Your task to perform on an android device: turn on sleep mode Image 0: 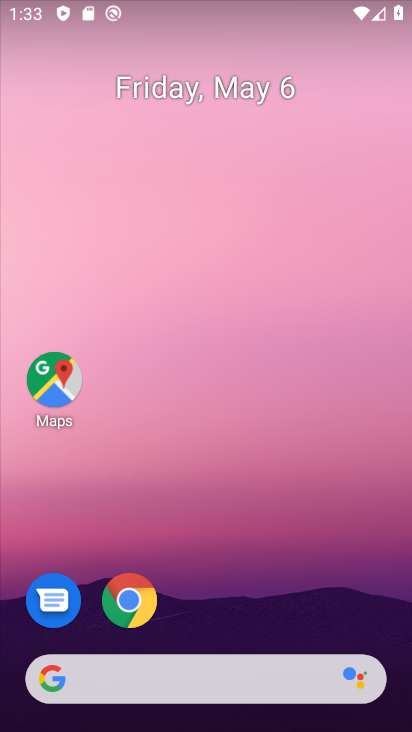
Step 0: drag from (289, 579) to (326, 44)
Your task to perform on an android device: turn on sleep mode Image 1: 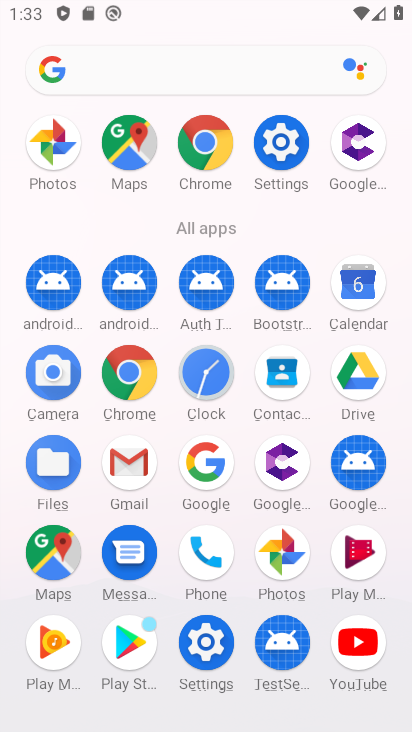
Step 1: click (272, 136)
Your task to perform on an android device: turn on sleep mode Image 2: 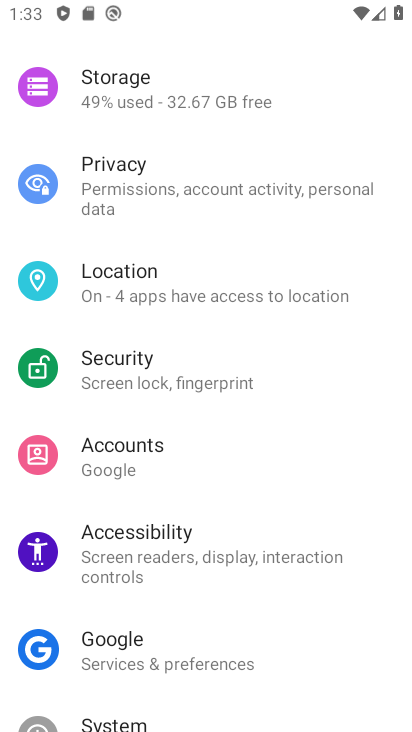
Step 2: drag from (226, 561) to (251, 426)
Your task to perform on an android device: turn on sleep mode Image 3: 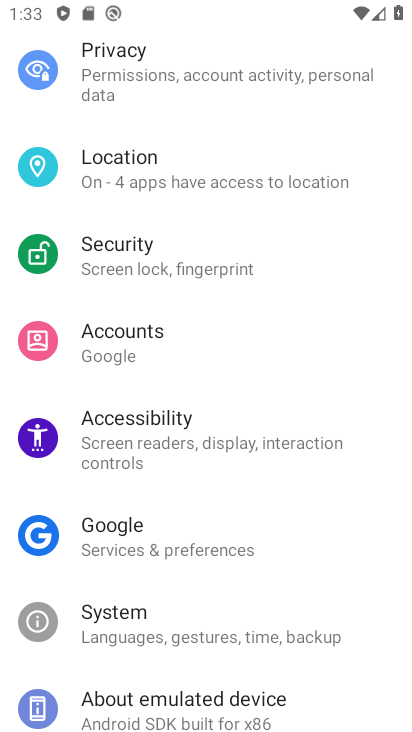
Step 3: drag from (188, 614) to (194, 515)
Your task to perform on an android device: turn on sleep mode Image 4: 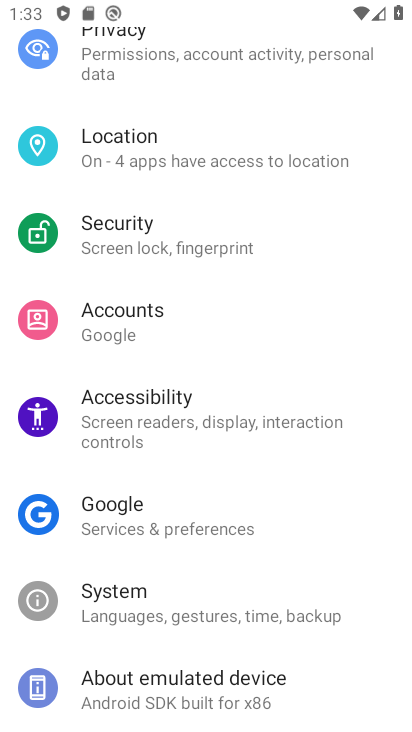
Step 4: drag from (218, 482) to (249, 574)
Your task to perform on an android device: turn on sleep mode Image 5: 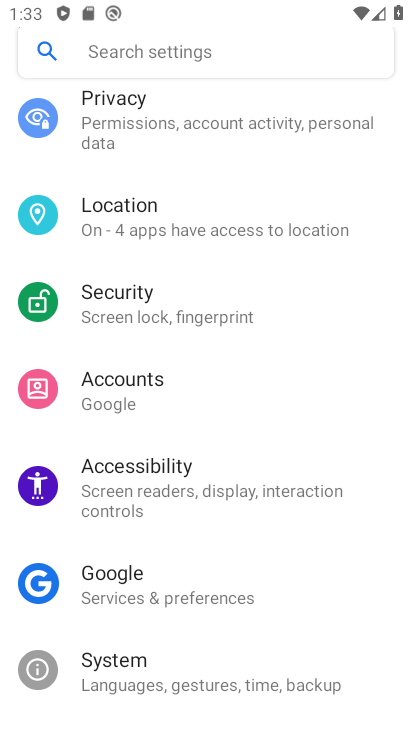
Step 5: drag from (257, 443) to (269, 529)
Your task to perform on an android device: turn on sleep mode Image 6: 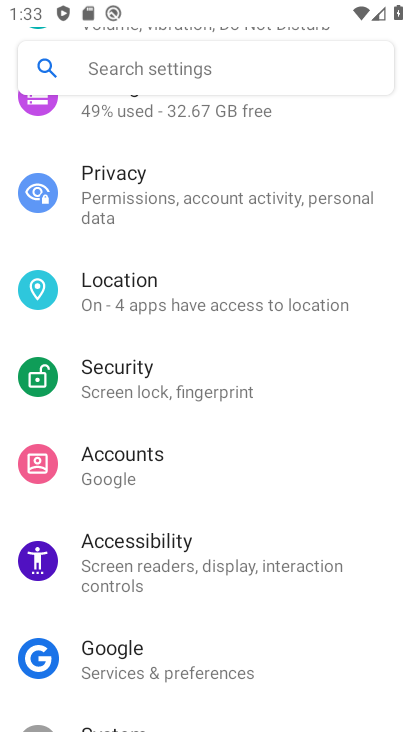
Step 6: drag from (282, 401) to (293, 464)
Your task to perform on an android device: turn on sleep mode Image 7: 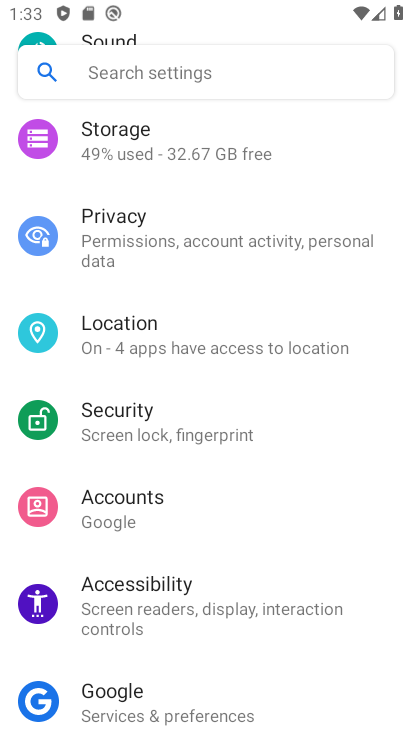
Step 7: drag from (190, 310) to (202, 379)
Your task to perform on an android device: turn on sleep mode Image 8: 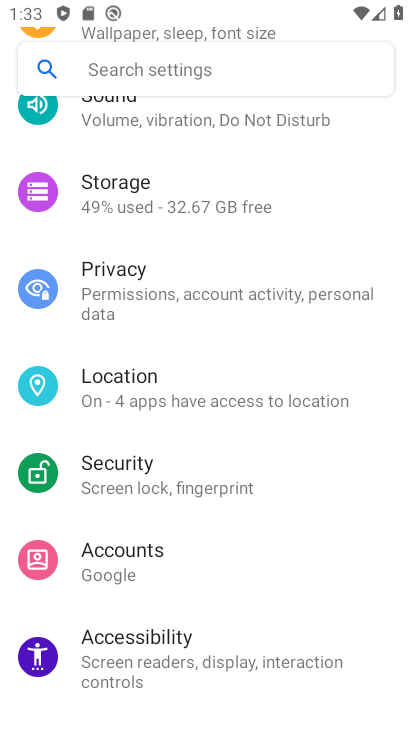
Step 8: drag from (202, 299) to (228, 359)
Your task to perform on an android device: turn on sleep mode Image 9: 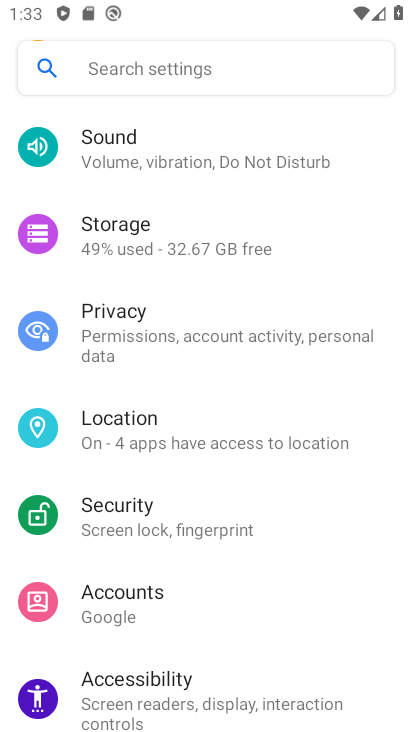
Step 9: drag from (236, 326) to (242, 375)
Your task to perform on an android device: turn on sleep mode Image 10: 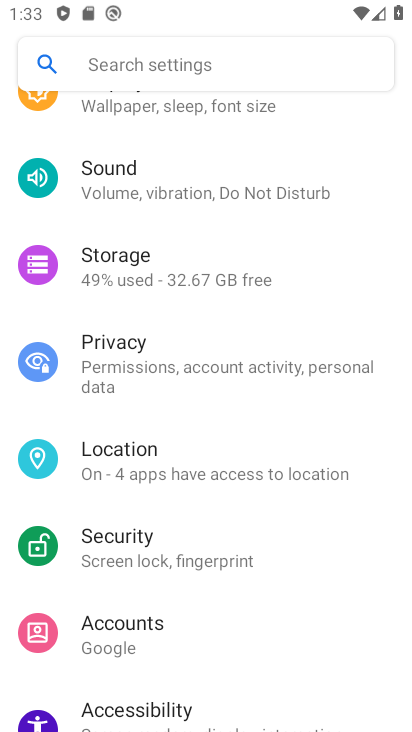
Step 10: drag from (241, 326) to (255, 370)
Your task to perform on an android device: turn on sleep mode Image 11: 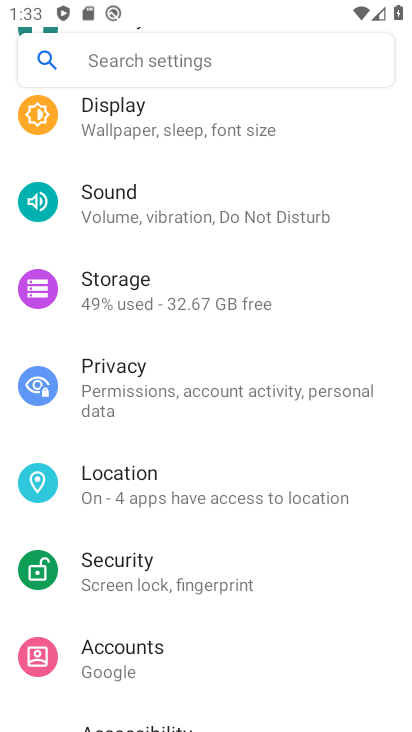
Step 11: drag from (248, 329) to (269, 394)
Your task to perform on an android device: turn on sleep mode Image 12: 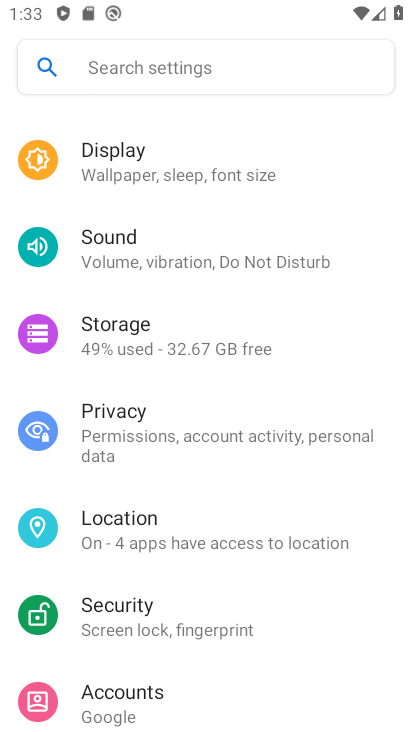
Step 12: drag from (258, 342) to (265, 399)
Your task to perform on an android device: turn on sleep mode Image 13: 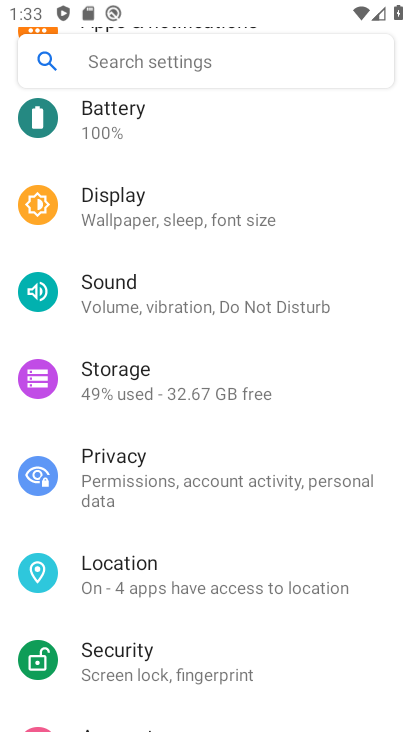
Step 13: drag from (266, 339) to (277, 396)
Your task to perform on an android device: turn on sleep mode Image 14: 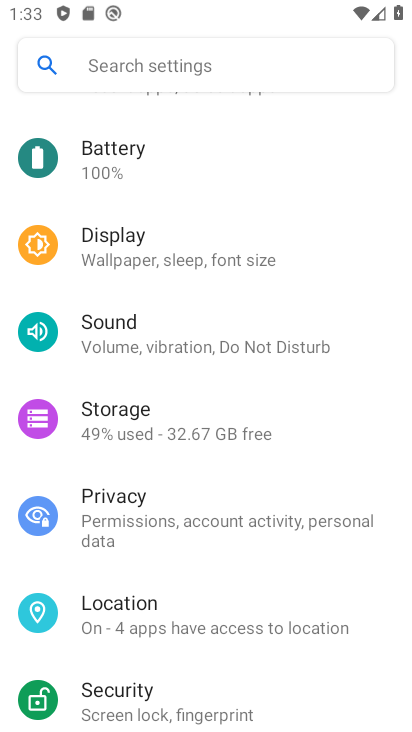
Step 14: drag from (267, 342) to (283, 412)
Your task to perform on an android device: turn on sleep mode Image 15: 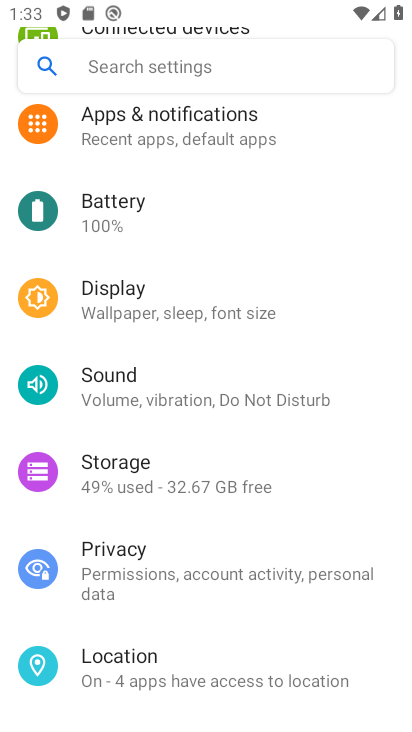
Step 15: drag from (267, 354) to (260, 422)
Your task to perform on an android device: turn on sleep mode Image 16: 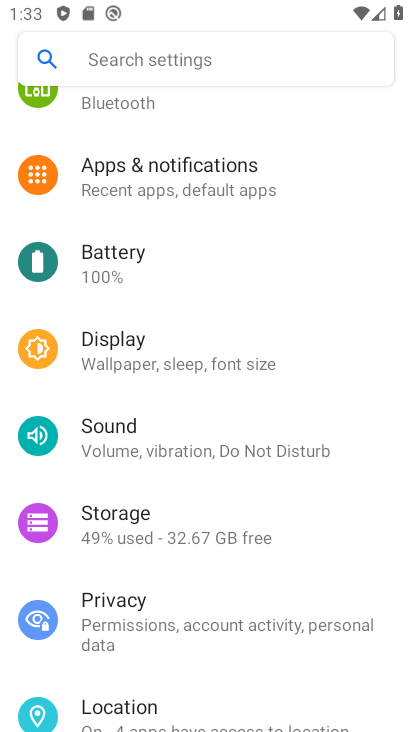
Step 16: drag from (263, 374) to (266, 421)
Your task to perform on an android device: turn on sleep mode Image 17: 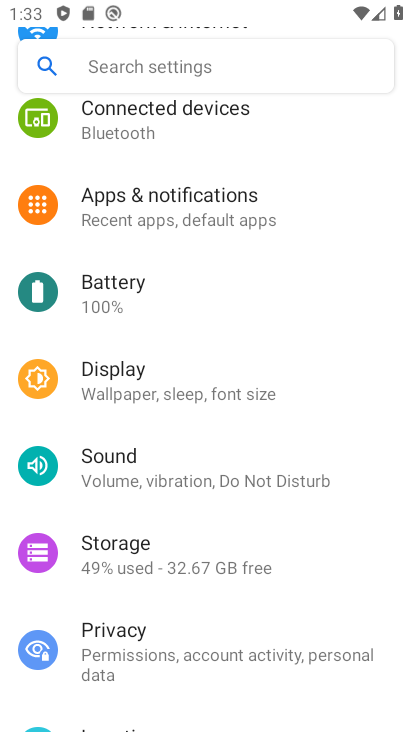
Step 17: drag from (283, 341) to (308, 426)
Your task to perform on an android device: turn on sleep mode Image 18: 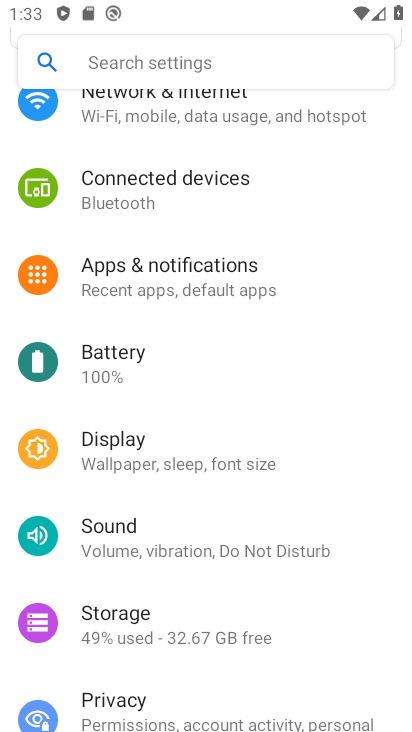
Step 18: drag from (301, 342) to (270, 538)
Your task to perform on an android device: turn on sleep mode Image 19: 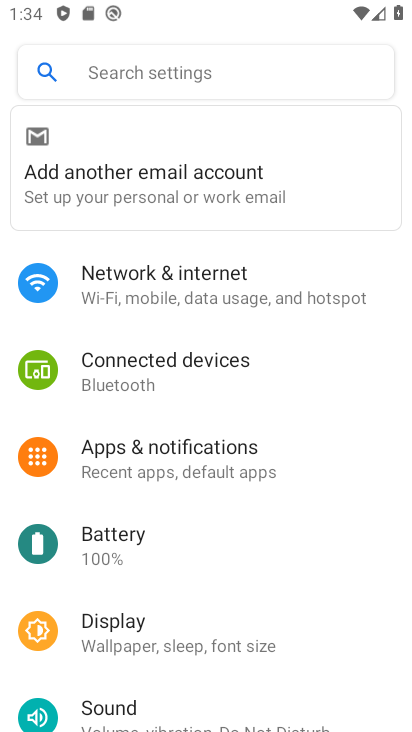
Step 19: click (164, 629)
Your task to perform on an android device: turn on sleep mode Image 20: 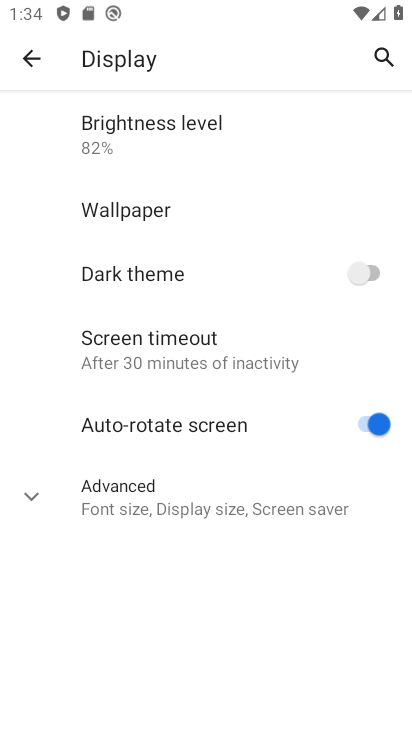
Step 20: click (212, 507)
Your task to perform on an android device: turn on sleep mode Image 21: 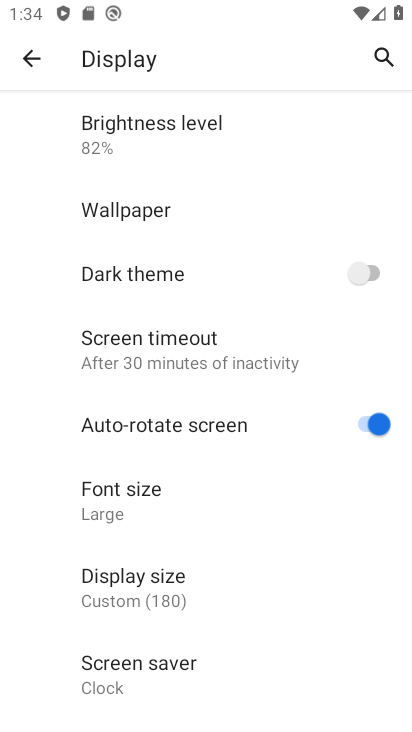
Step 21: task complete